Your task to perform on an android device: uninstall "VLC for Android" Image 0: 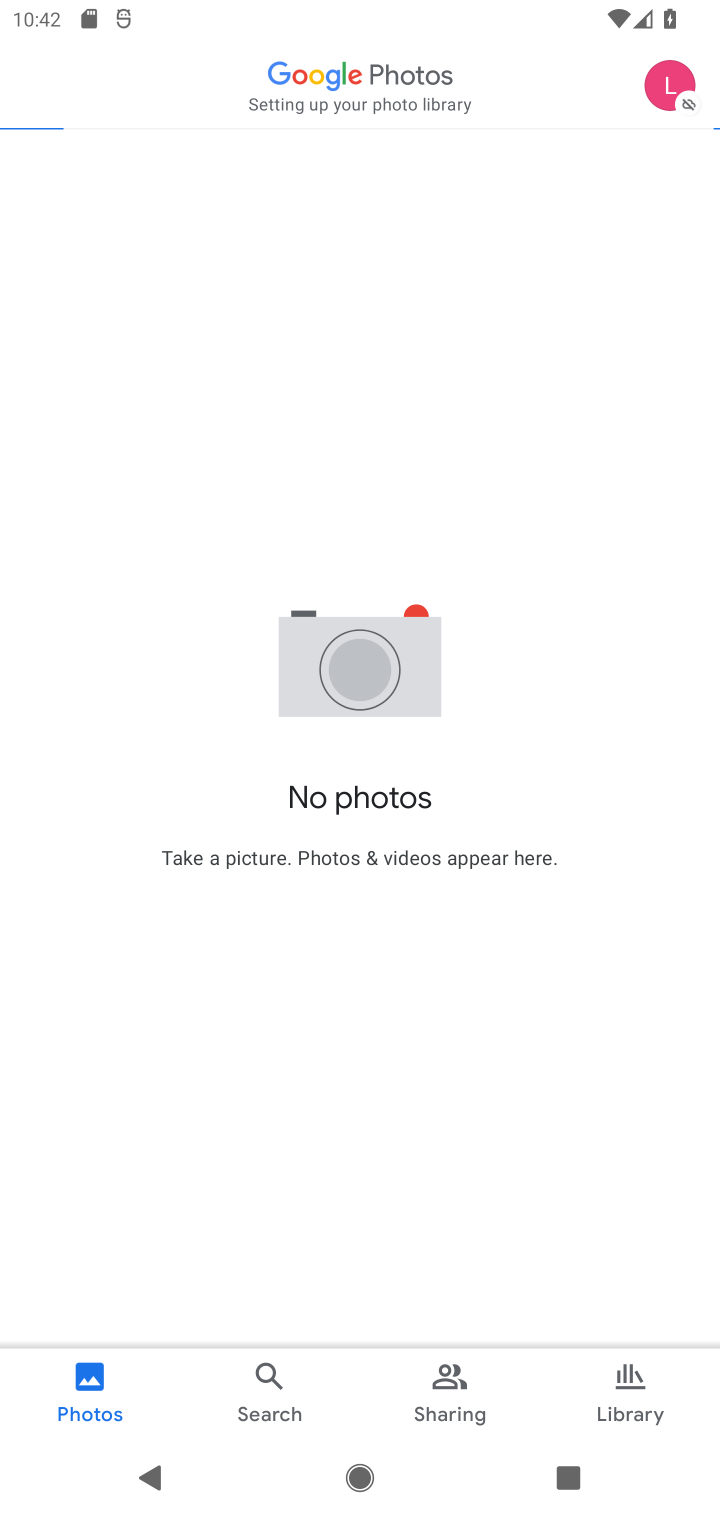
Step 0: press home button
Your task to perform on an android device: uninstall "VLC for Android" Image 1: 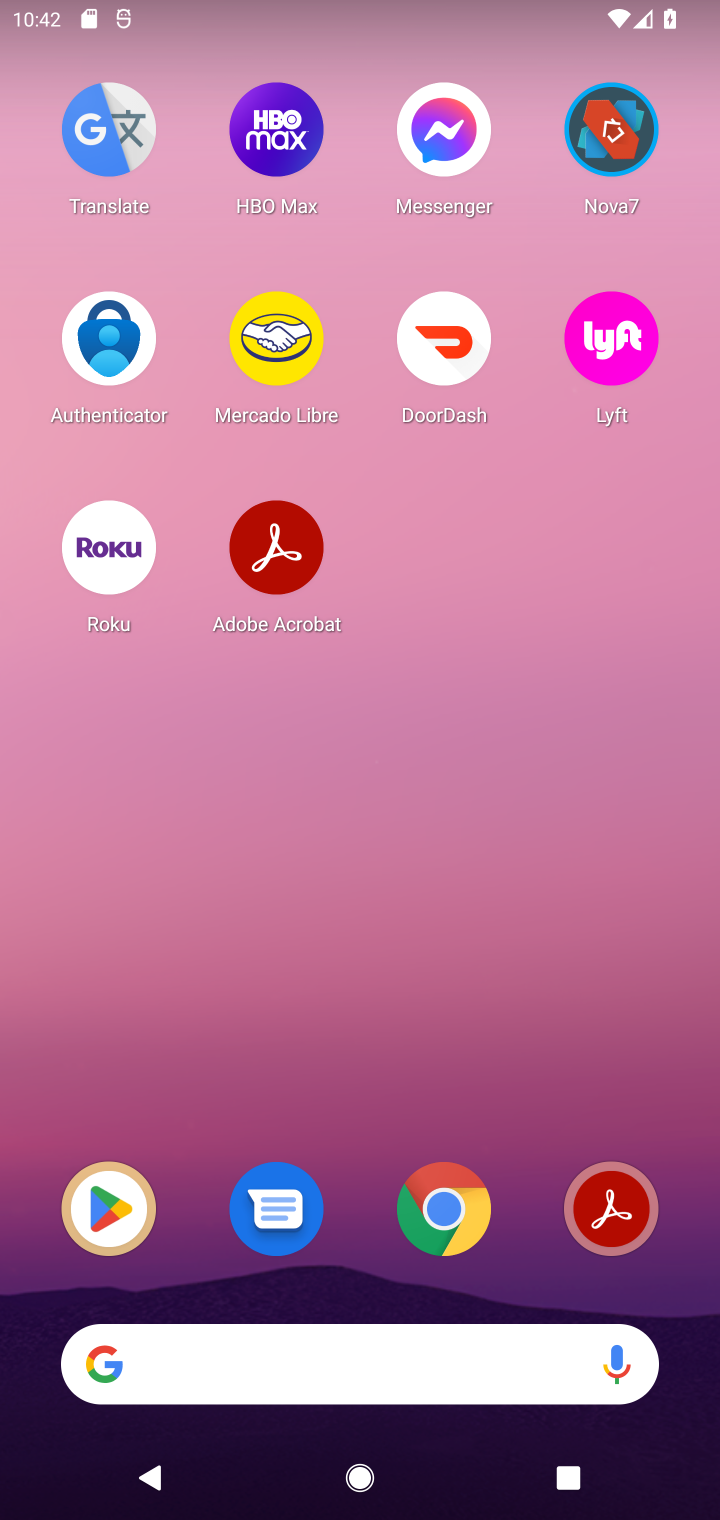
Step 1: drag from (512, 973) to (525, 279)
Your task to perform on an android device: uninstall "VLC for Android" Image 2: 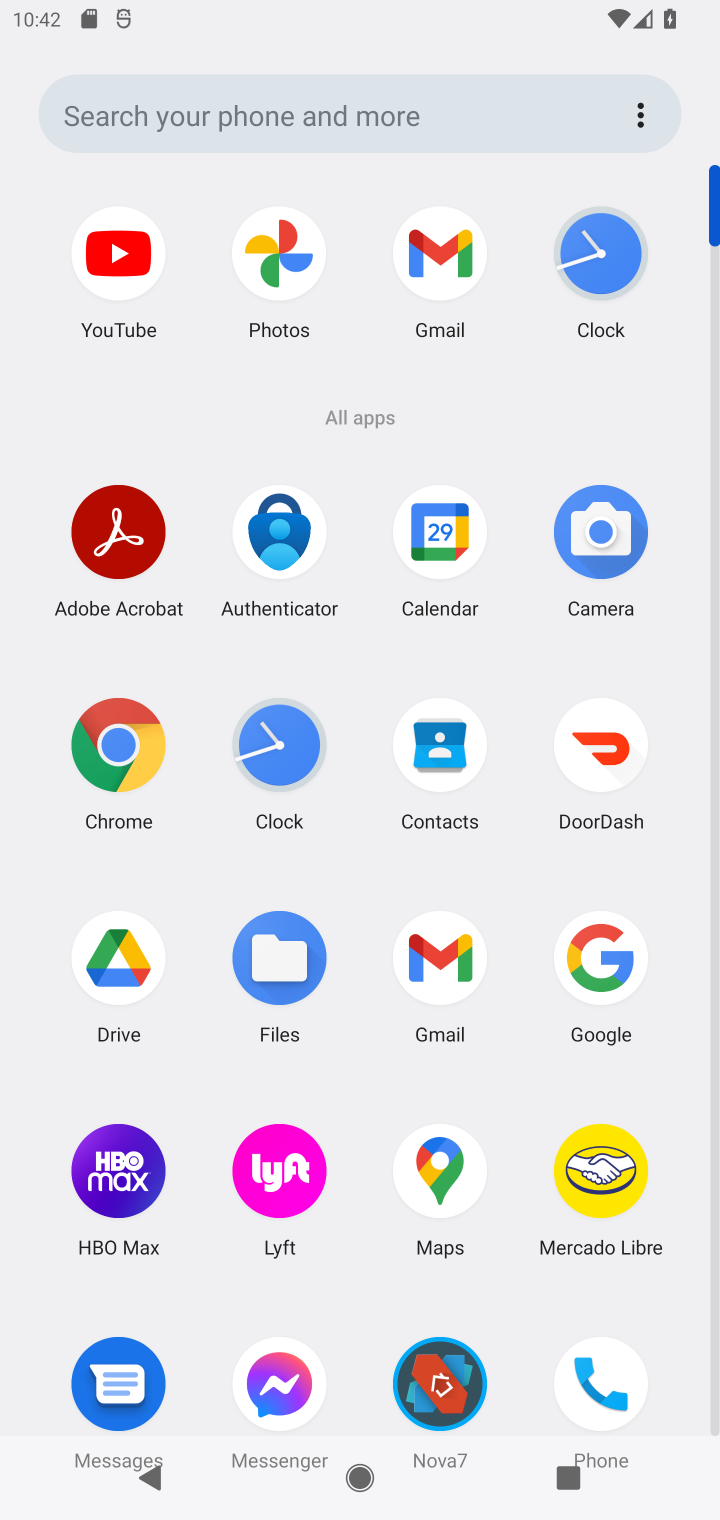
Step 2: drag from (508, 1247) to (583, 445)
Your task to perform on an android device: uninstall "VLC for Android" Image 3: 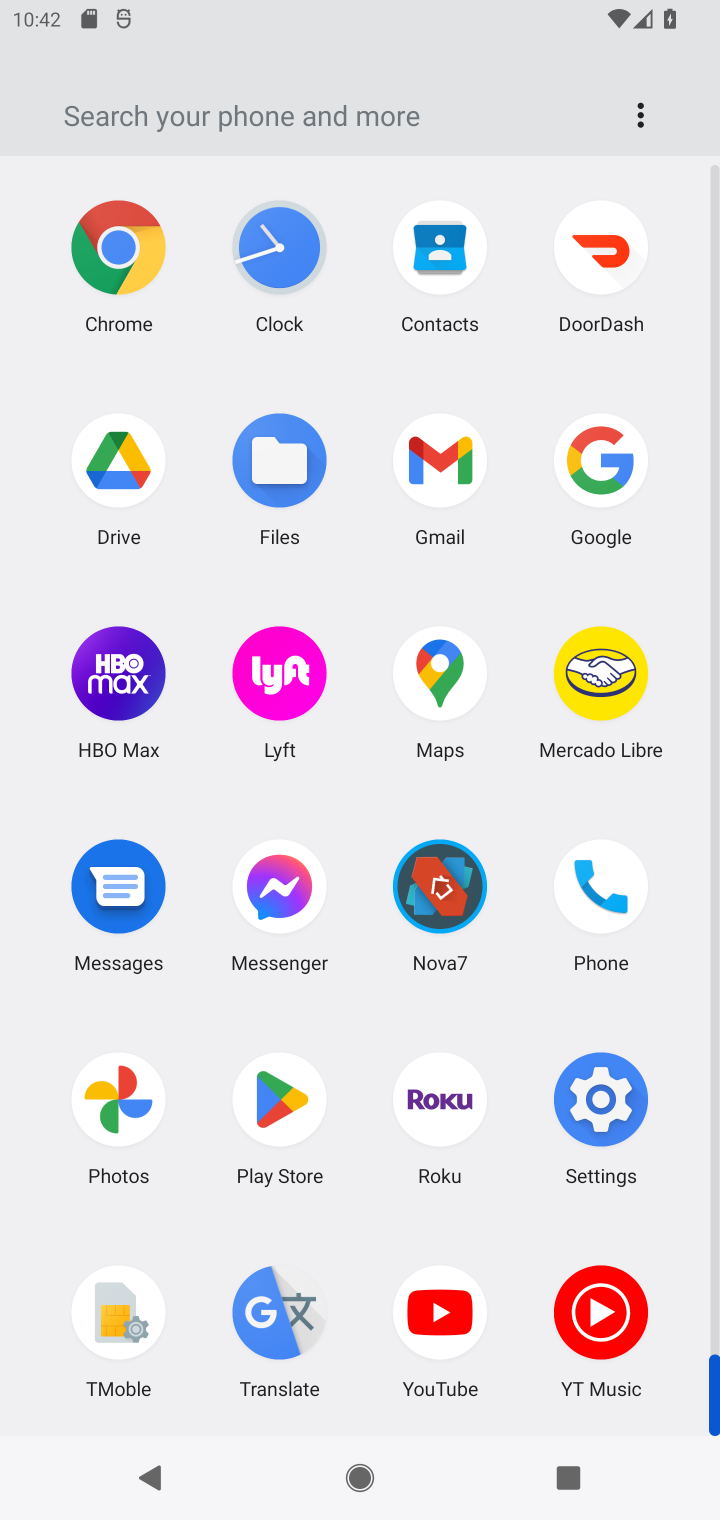
Step 3: click (287, 1098)
Your task to perform on an android device: uninstall "VLC for Android" Image 4: 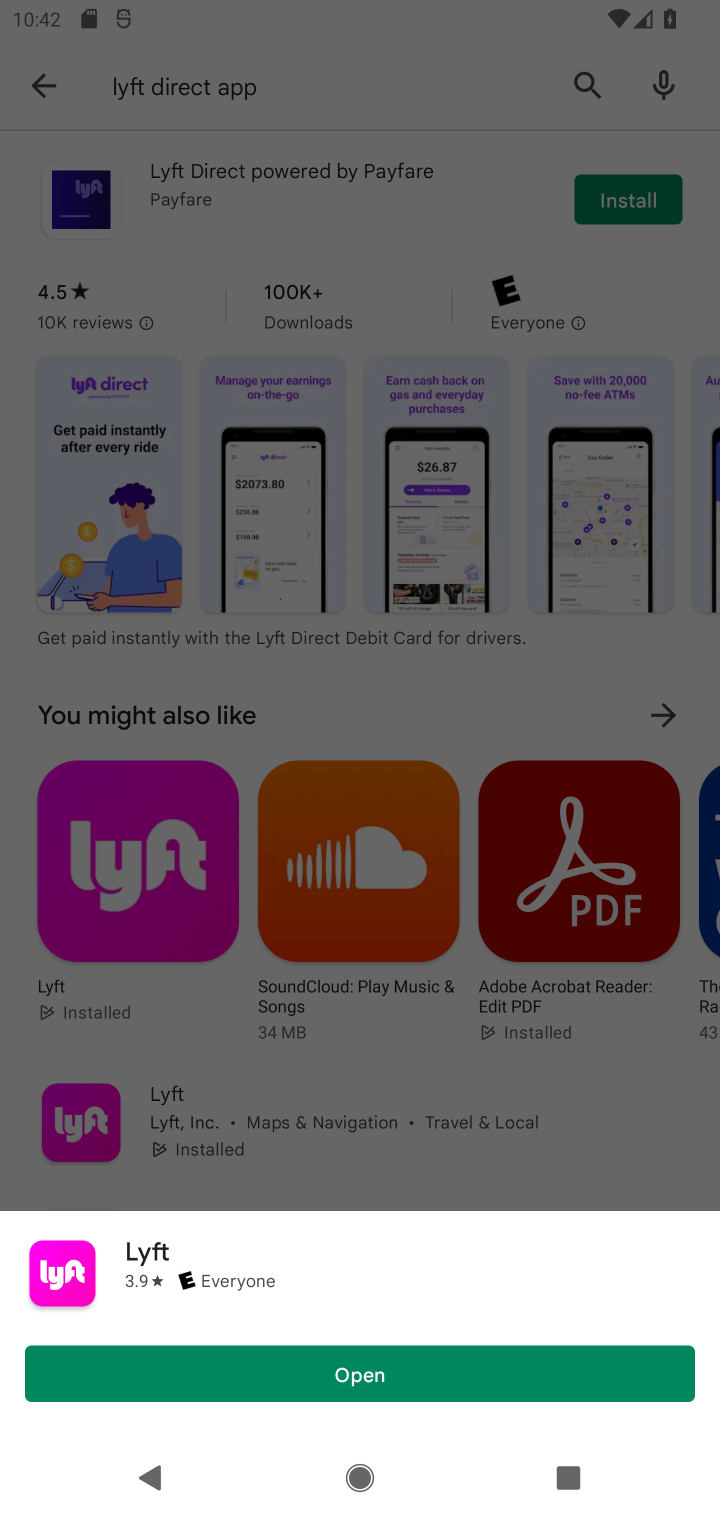
Step 4: click (416, 114)
Your task to perform on an android device: uninstall "VLC for Android" Image 5: 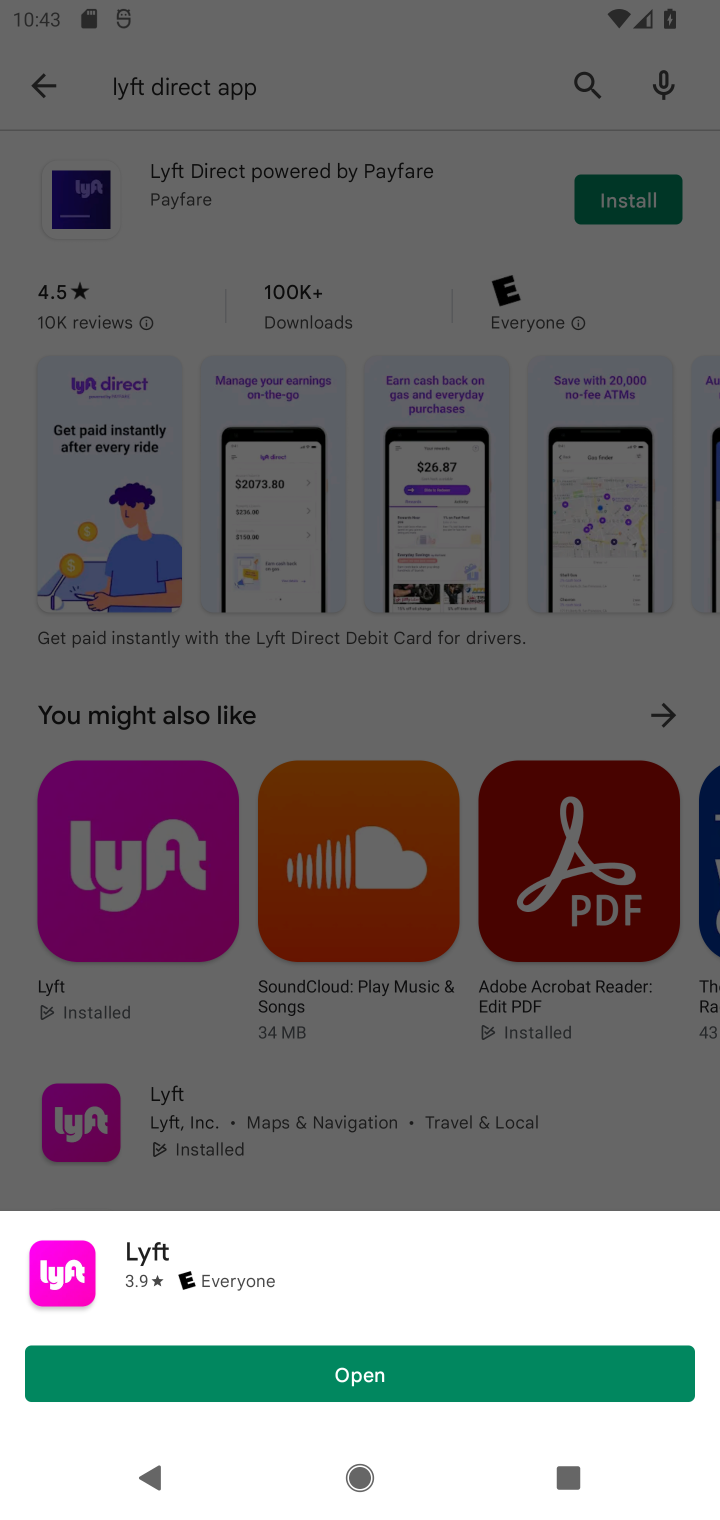
Step 5: click (416, 114)
Your task to perform on an android device: uninstall "VLC for Android" Image 6: 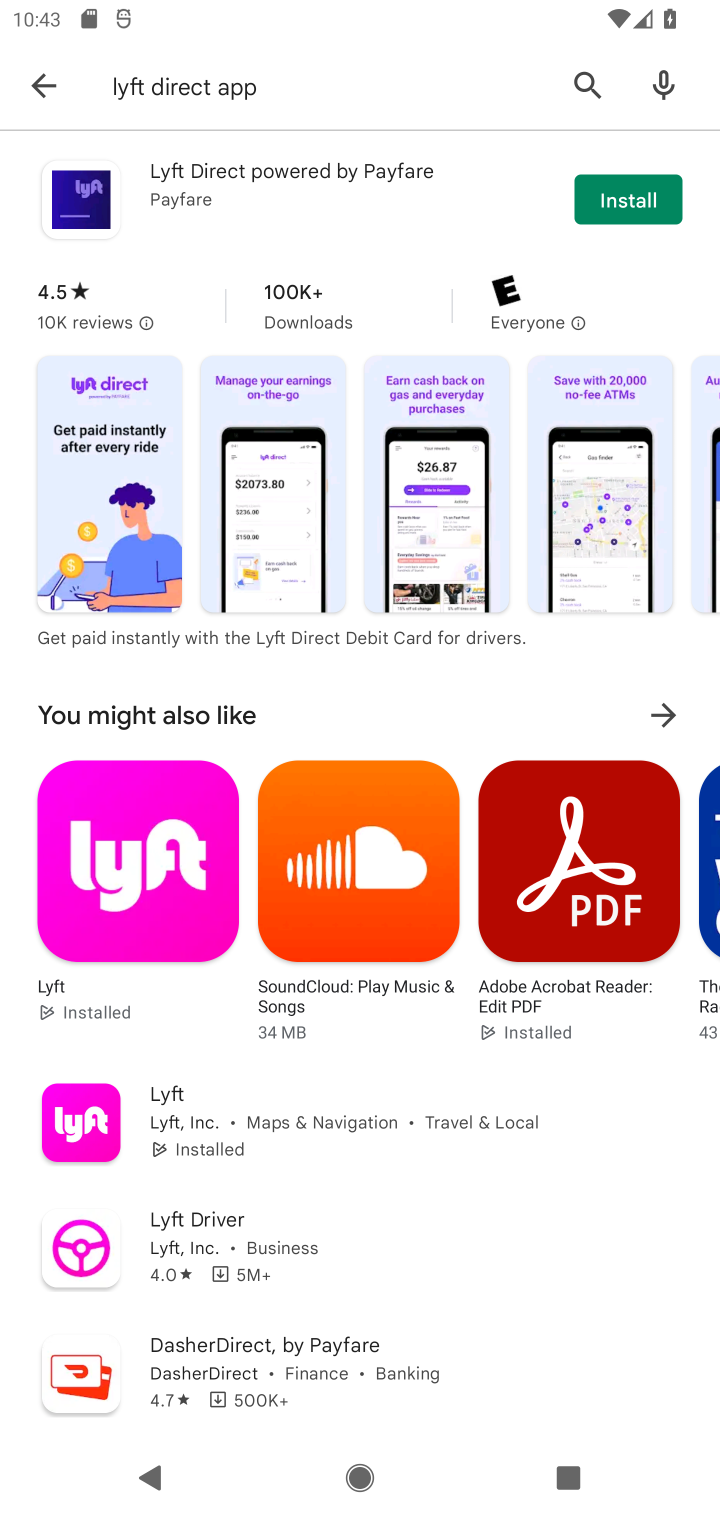
Step 6: click (416, 114)
Your task to perform on an android device: uninstall "VLC for Android" Image 7: 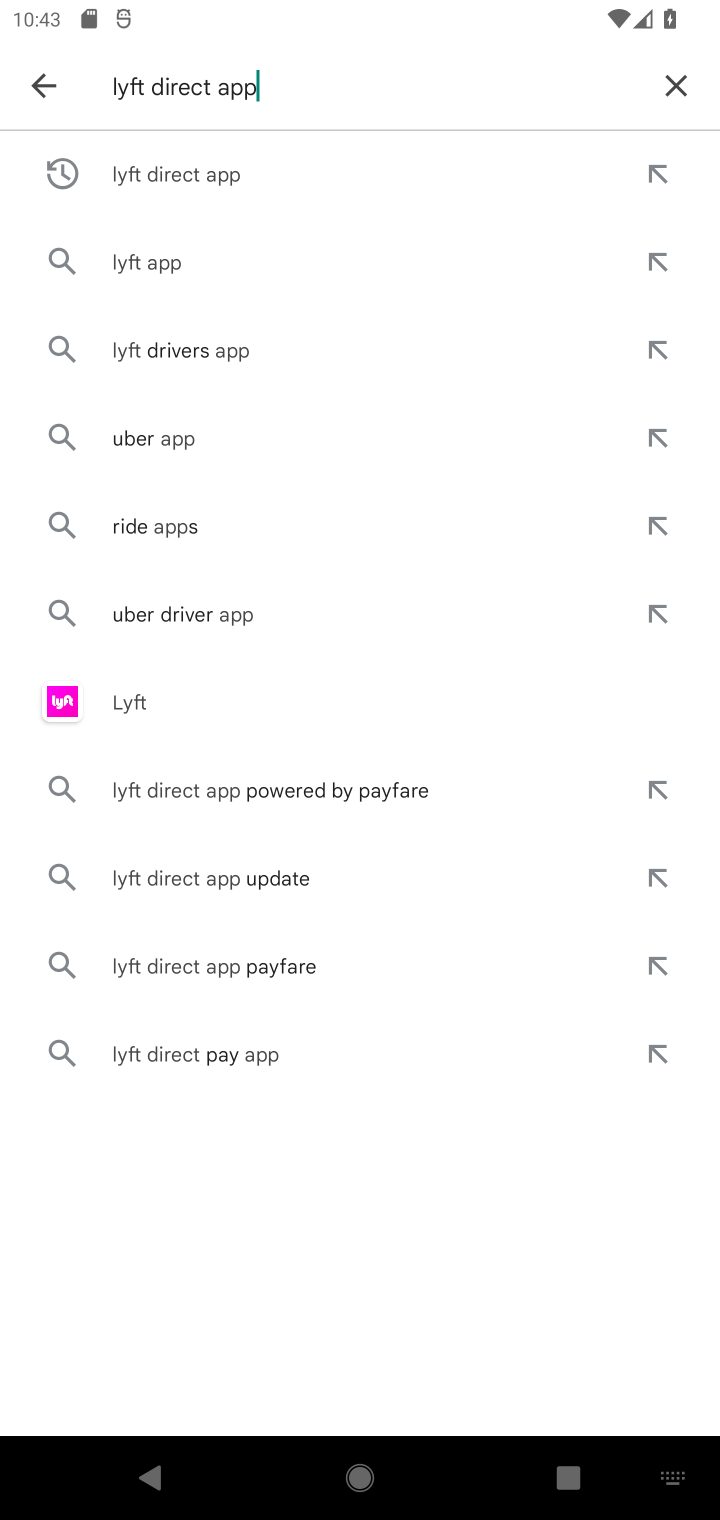
Step 7: click (674, 85)
Your task to perform on an android device: uninstall "VLC for Android" Image 8: 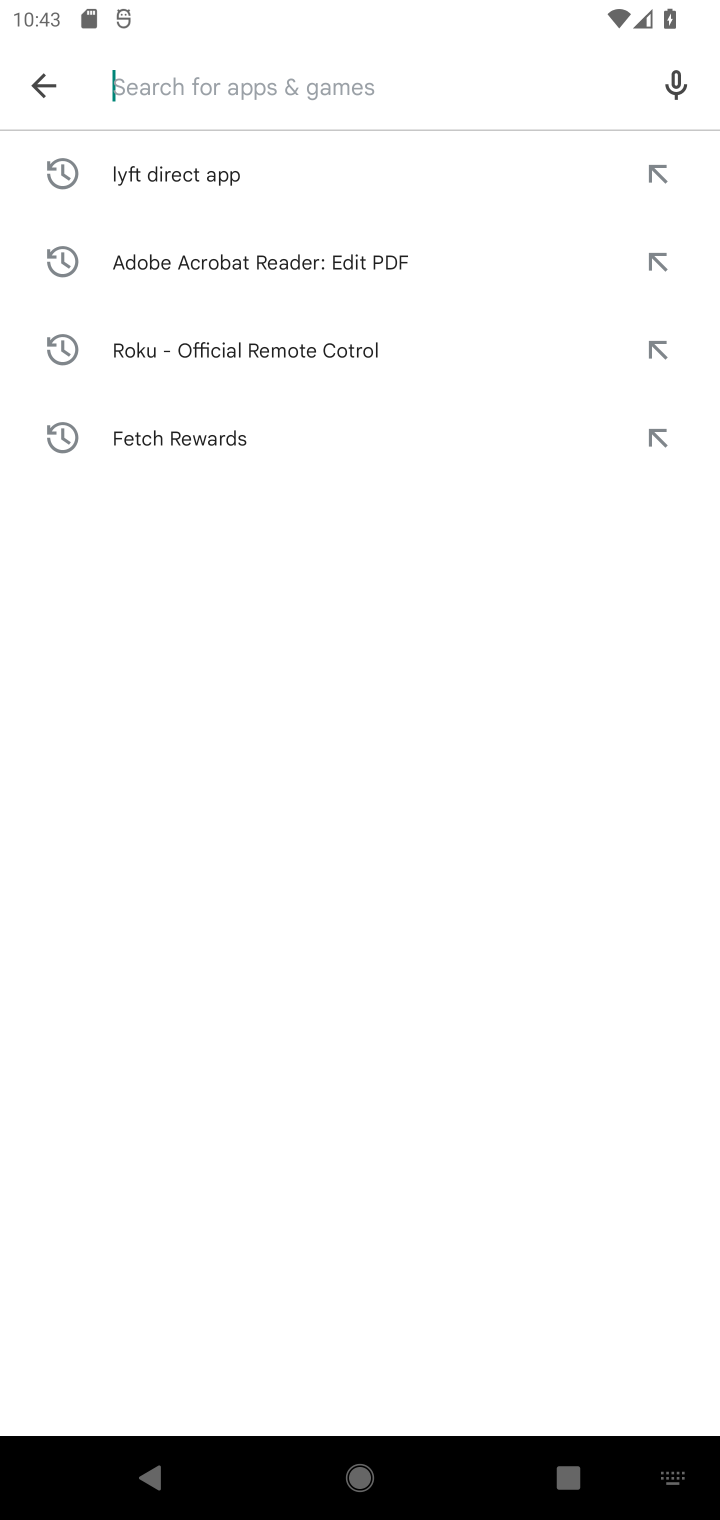
Step 8: type "VLC for Android"
Your task to perform on an android device: uninstall "VLC for Android" Image 9: 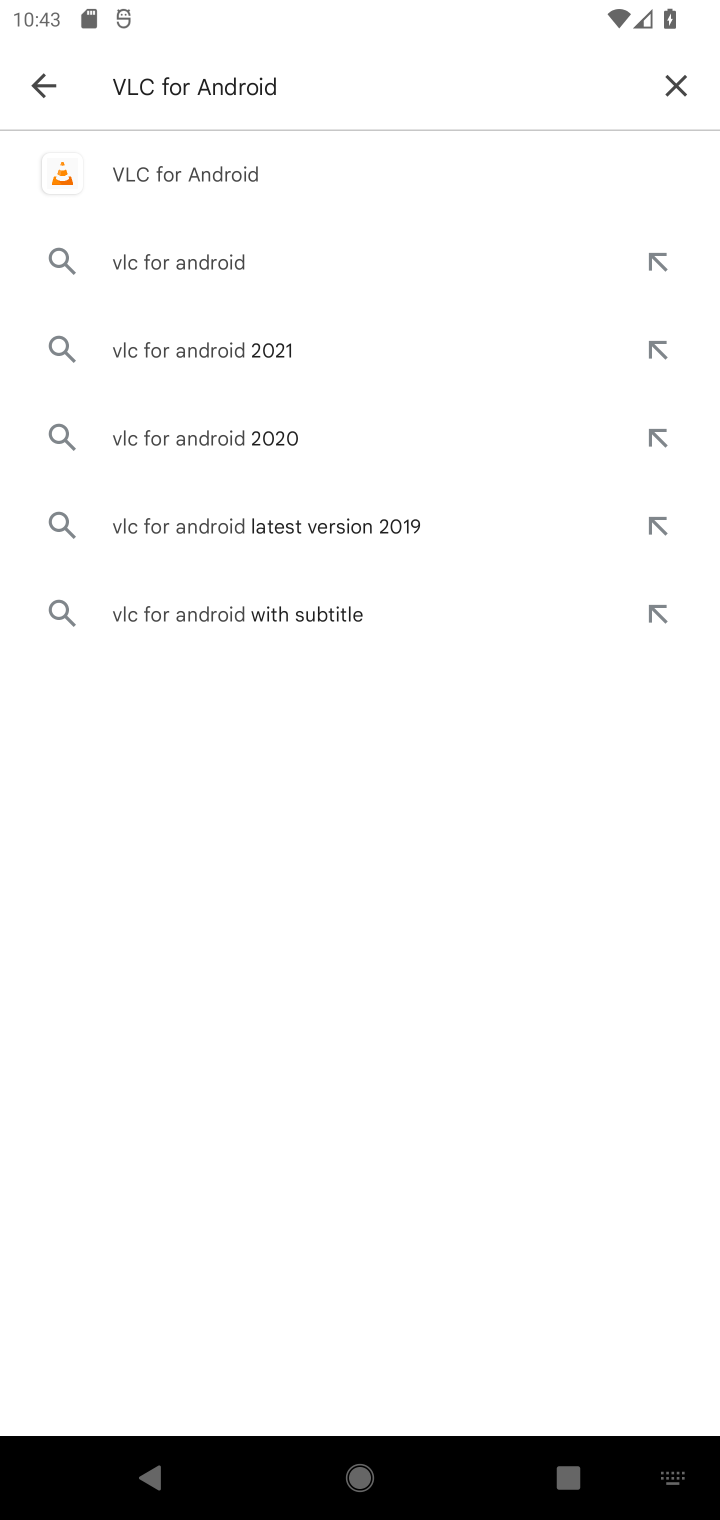
Step 9: press enter
Your task to perform on an android device: uninstall "VLC for Android" Image 10: 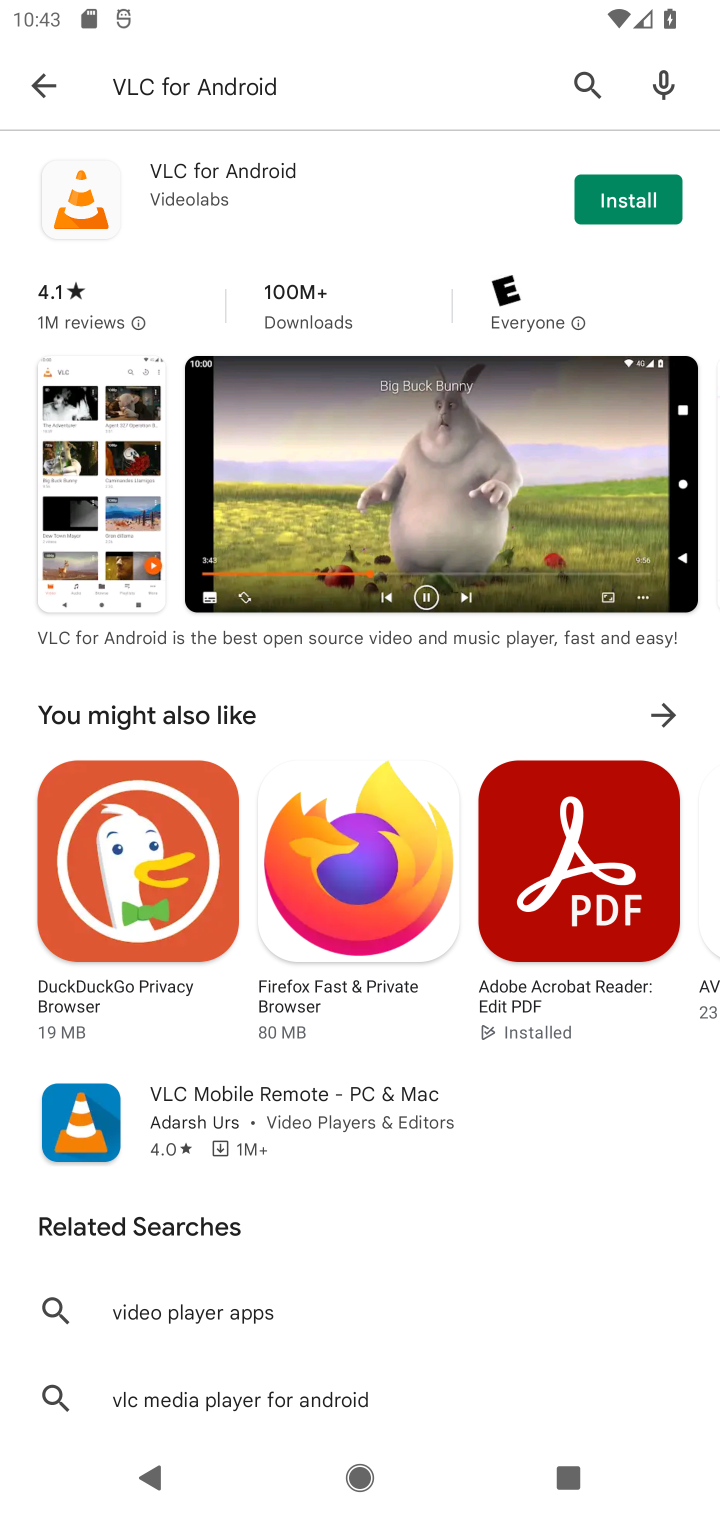
Step 10: task complete